Your task to perform on an android device: all mails in gmail Image 0: 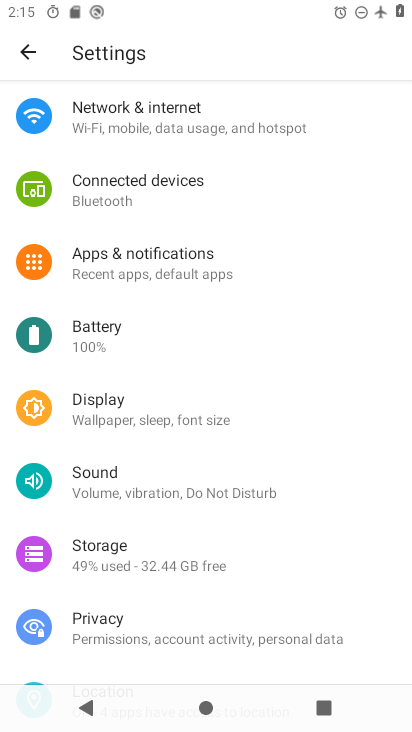
Step 0: press home button
Your task to perform on an android device: all mails in gmail Image 1: 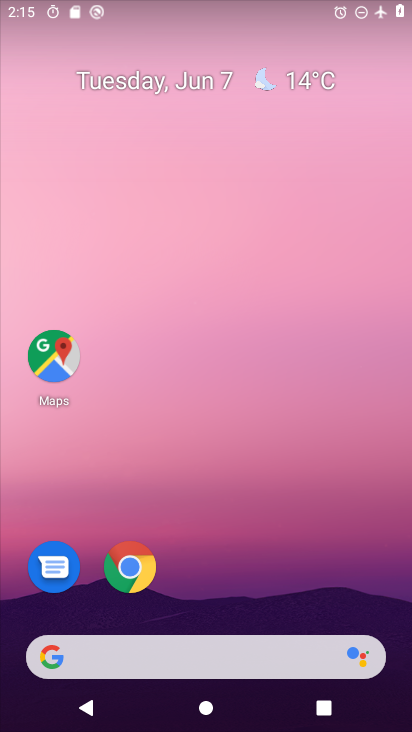
Step 1: drag from (323, 576) to (329, 76)
Your task to perform on an android device: all mails in gmail Image 2: 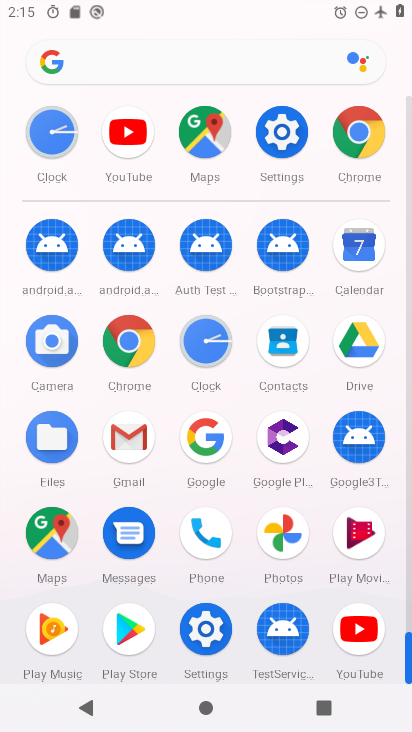
Step 2: click (100, 435)
Your task to perform on an android device: all mails in gmail Image 3: 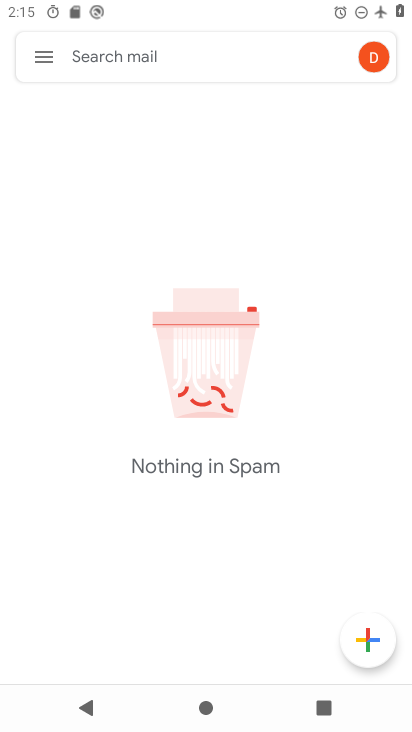
Step 3: click (32, 61)
Your task to perform on an android device: all mails in gmail Image 4: 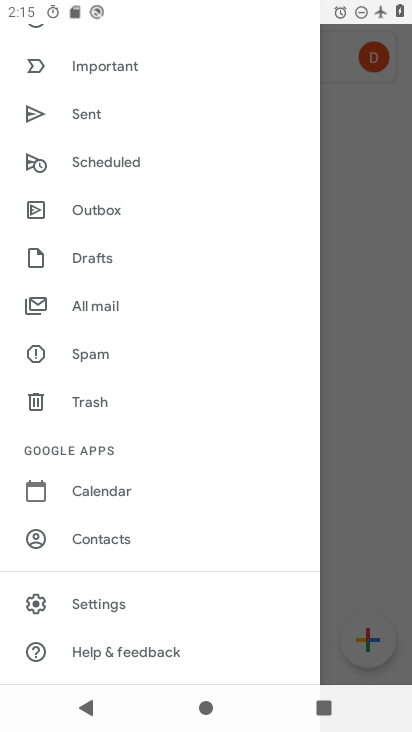
Step 4: click (105, 304)
Your task to perform on an android device: all mails in gmail Image 5: 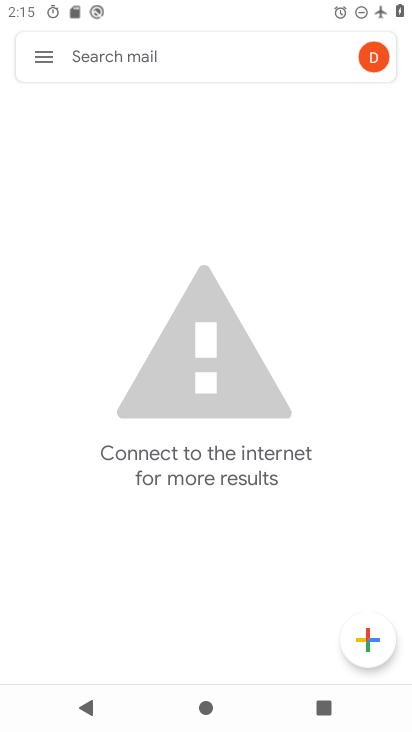
Step 5: task complete